Your task to perform on an android device: turn pop-ups on in chrome Image 0: 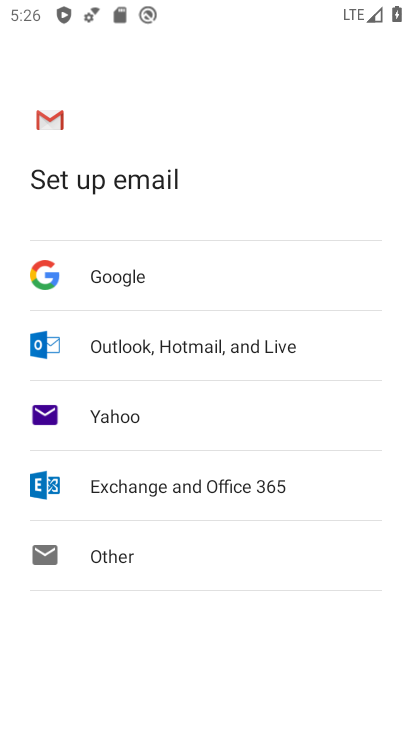
Step 0: press home button
Your task to perform on an android device: turn pop-ups on in chrome Image 1: 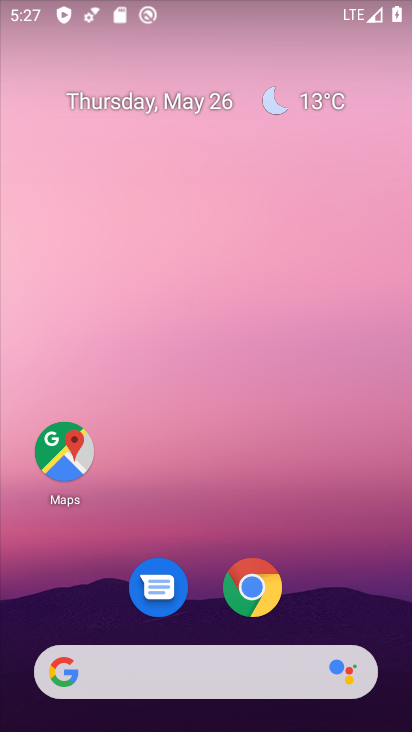
Step 1: click (256, 586)
Your task to perform on an android device: turn pop-ups on in chrome Image 2: 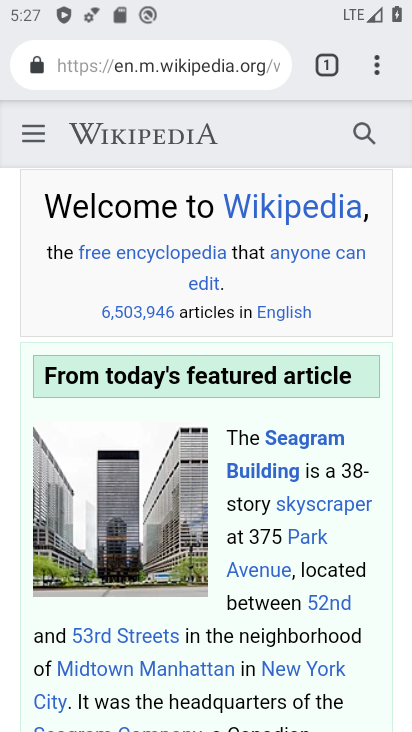
Step 2: click (376, 69)
Your task to perform on an android device: turn pop-ups on in chrome Image 3: 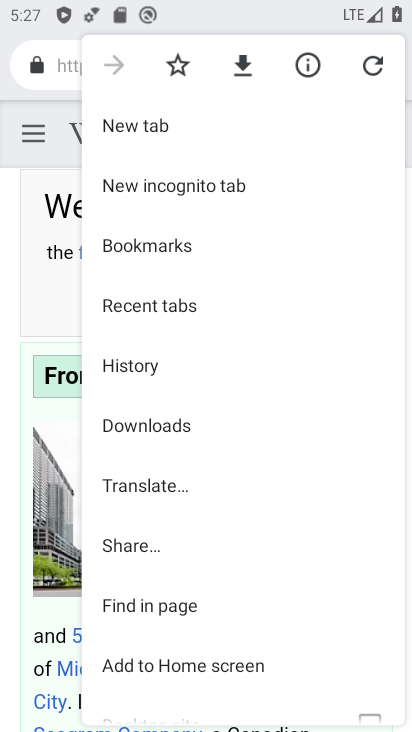
Step 3: drag from (186, 689) to (184, 176)
Your task to perform on an android device: turn pop-ups on in chrome Image 4: 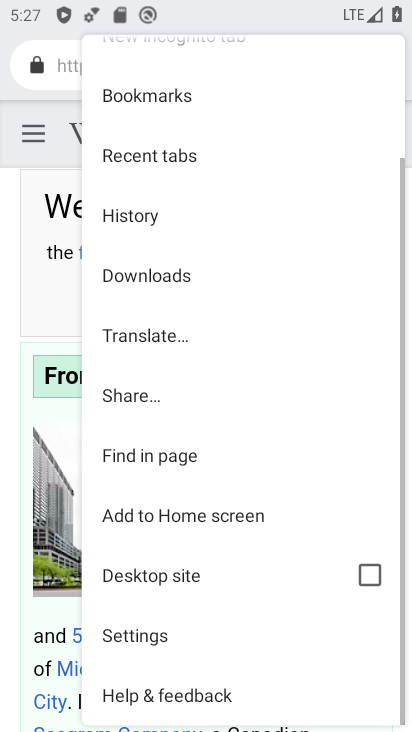
Step 4: click (133, 632)
Your task to perform on an android device: turn pop-ups on in chrome Image 5: 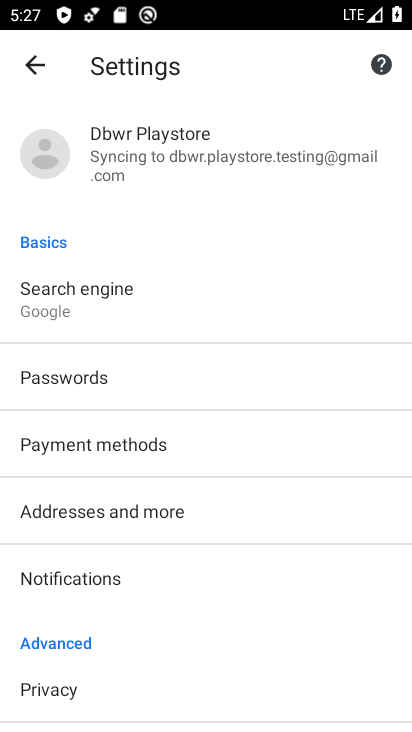
Step 5: drag from (105, 687) to (130, 344)
Your task to perform on an android device: turn pop-ups on in chrome Image 6: 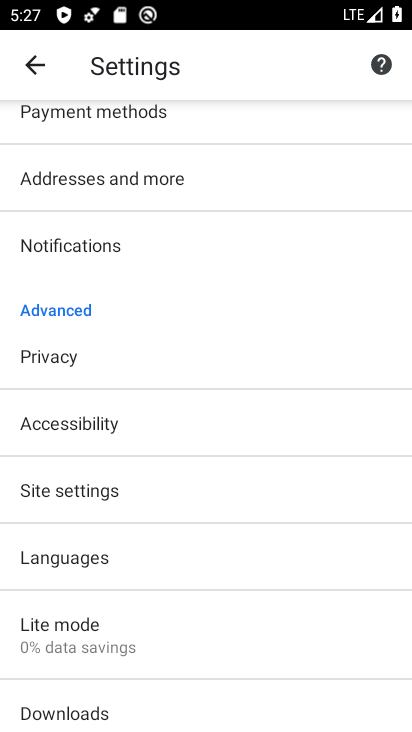
Step 6: drag from (86, 682) to (97, 324)
Your task to perform on an android device: turn pop-ups on in chrome Image 7: 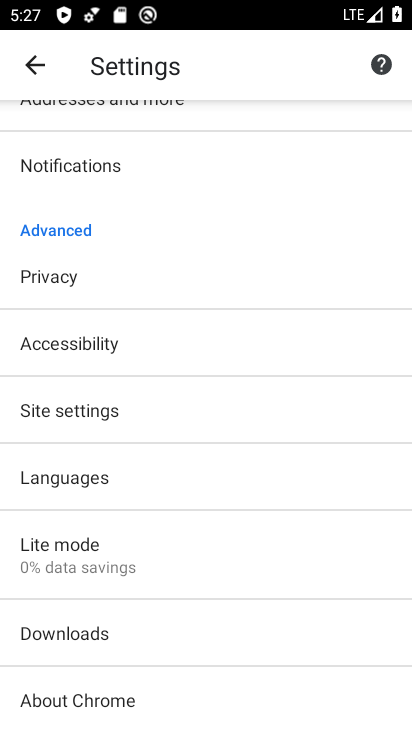
Step 7: click (70, 408)
Your task to perform on an android device: turn pop-ups on in chrome Image 8: 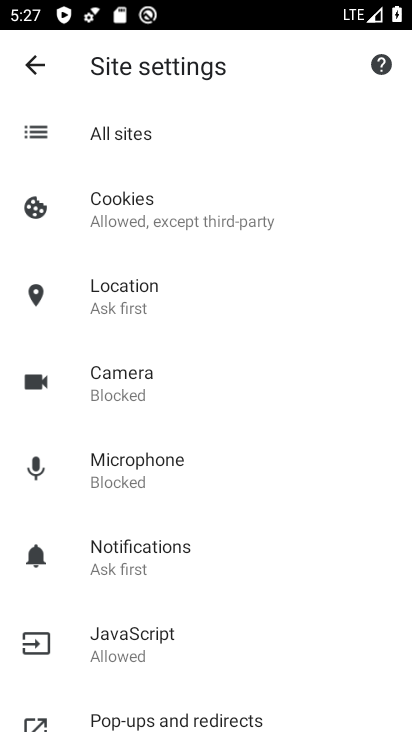
Step 8: drag from (144, 685) to (149, 428)
Your task to perform on an android device: turn pop-ups on in chrome Image 9: 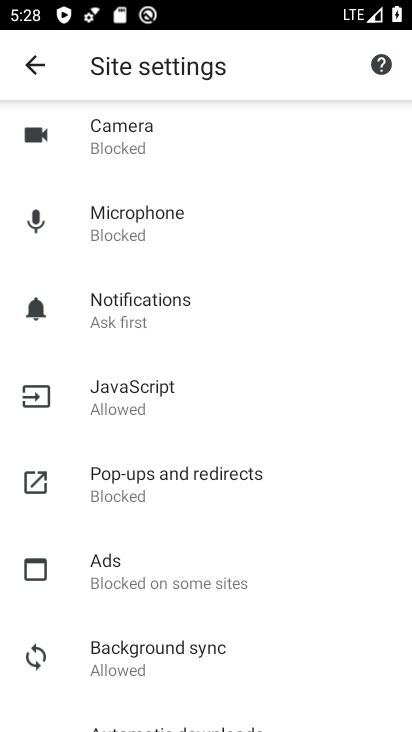
Step 9: click (146, 477)
Your task to perform on an android device: turn pop-ups on in chrome Image 10: 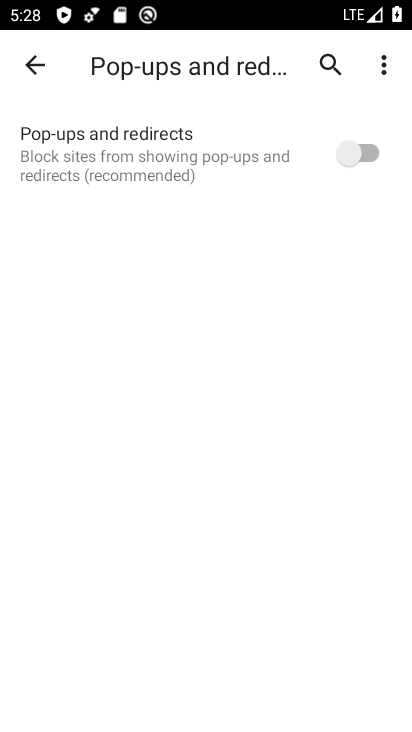
Step 10: click (367, 146)
Your task to perform on an android device: turn pop-ups on in chrome Image 11: 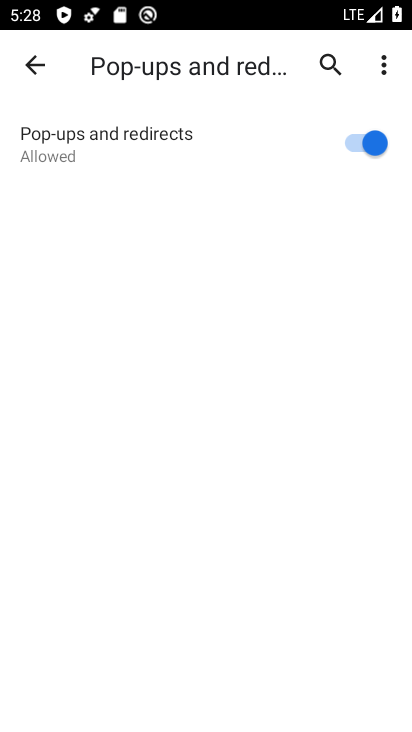
Step 11: task complete